Your task to perform on an android device: Show me popular videos on Youtube Image 0: 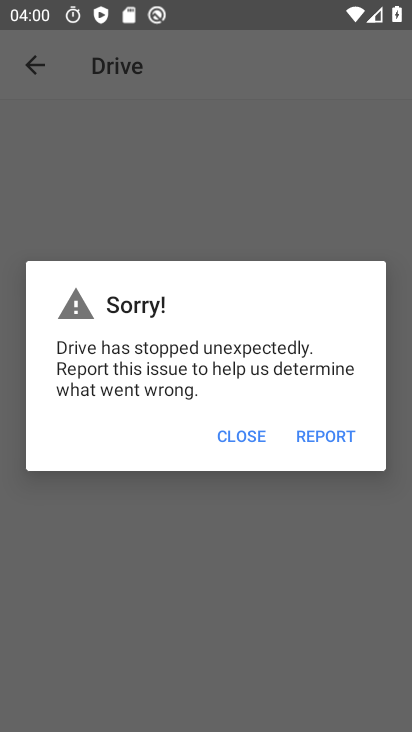
Step 0: press home button
Your task to perform on an android device: Show me popular videos on Youtube Image 1: 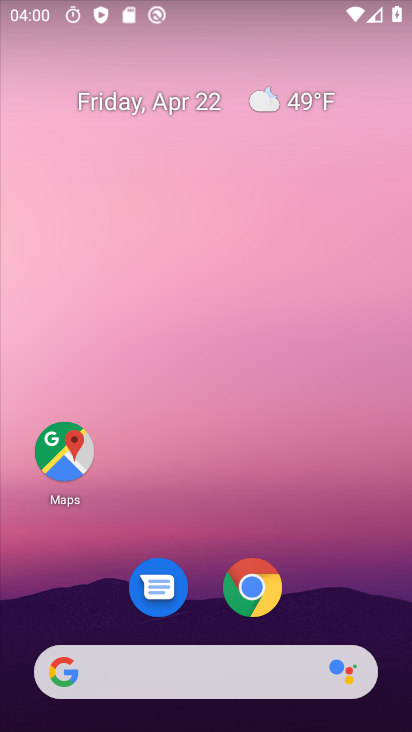
Step 1: drag from (387, 626) to (405, 667)
Your task to perform on an android device: Show me popular videos on Youtube Image 2: 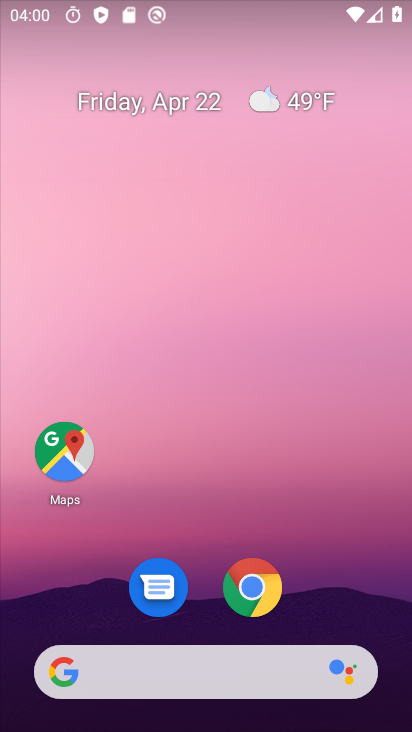
Step 2: drag from (394, 603) to (390, 40)
Your task to perform on an android device: Show me popular videos on Youtube Image 3: 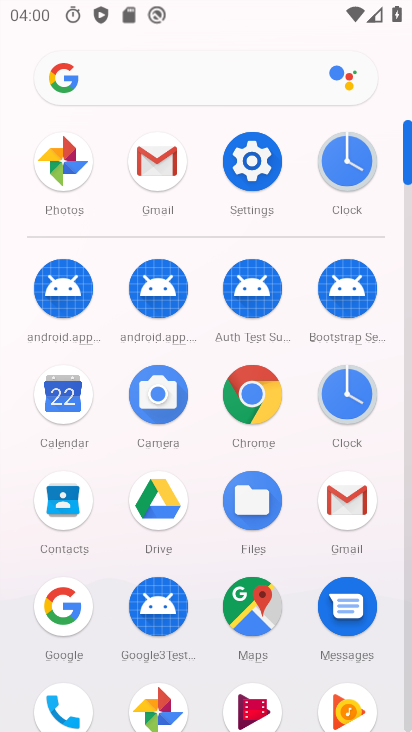
Step 3: drag from (404, 656) to (411, 617)
Your task to perform on an android device: Show me popular videos on Youtube Image 4: 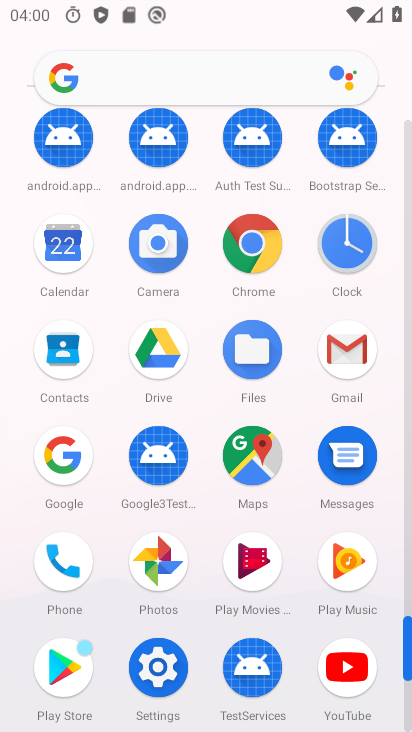
Step 4: click (349, 679)
Your task to perform on an android device: Show me popular videos on Youtube Image 5: 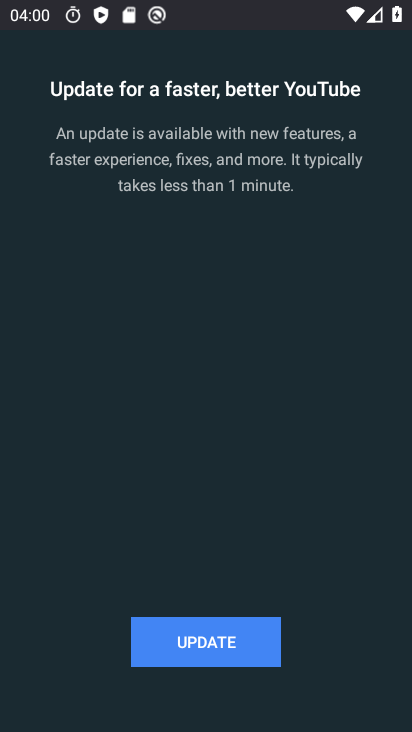
Step 5: click (236, 656)
Your task to perform on an android device: Show me popular videos on Youtube Image 6: 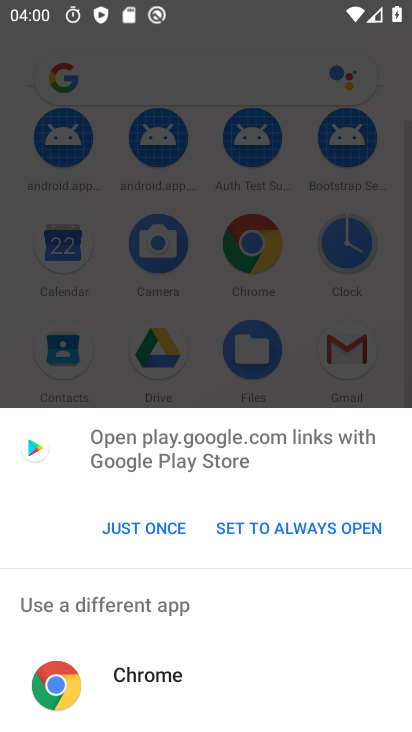
Step 6: click (136, 528)
Your task to perform on an android device: Show me popular videos on Youtube Image 7: 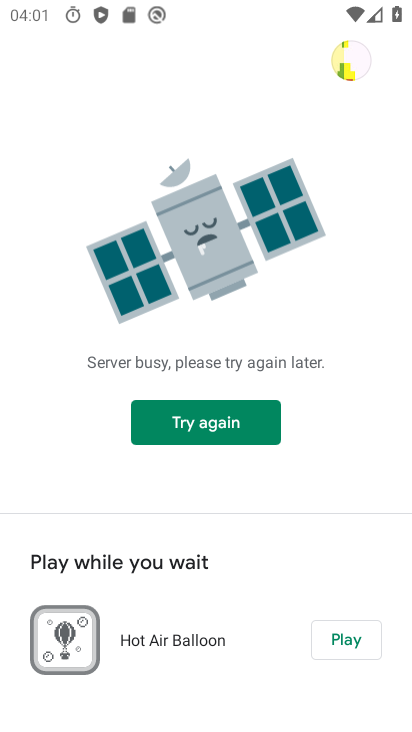
Step 7: task complete